Your task to perform on an android device: turn off notifications settings in the gmail app Image 0: 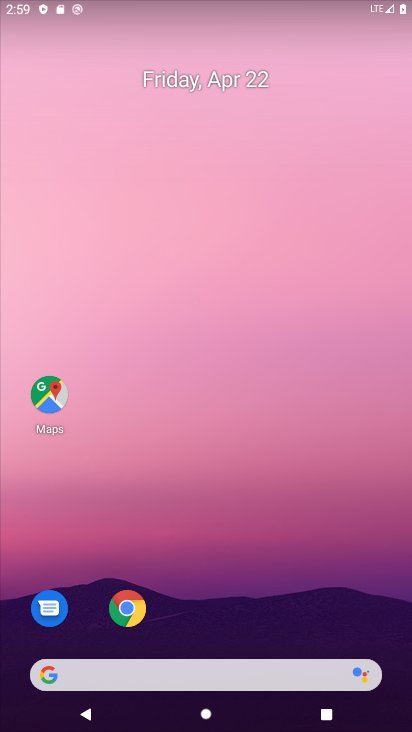
Step 0: drag from (275, 700) to (239, 228)
Your task to perform on an android device: turn off notifications settings in the gmail app Image 1: 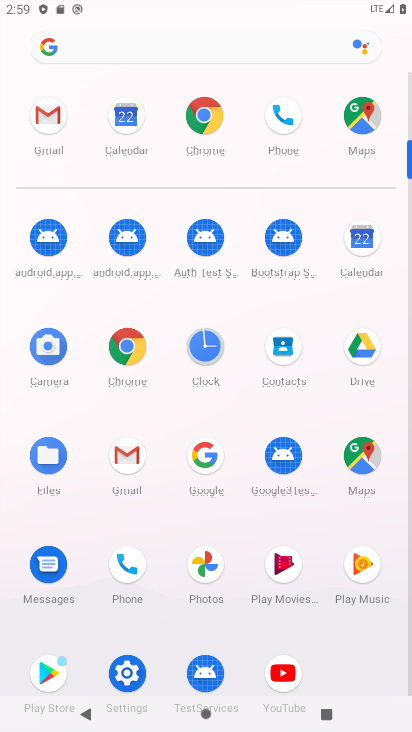
Step 1: click (131, 452)
Your task to perform on an android device: turn off notifications settings in the gmail app Image 2: 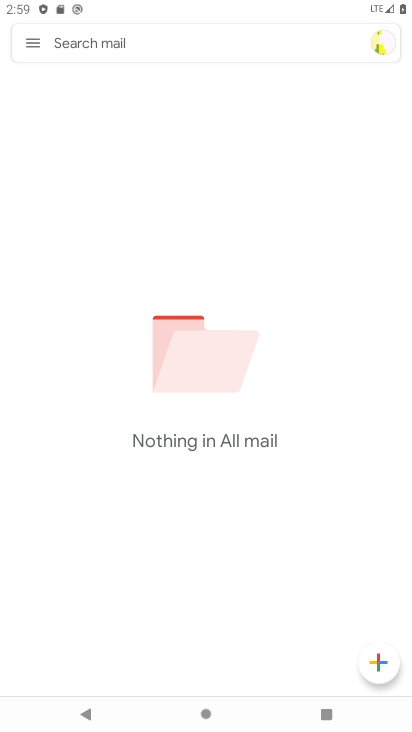
Step 2: click (24, 49)
Your task to perform on an android device: turn off notifications settings in the gmail app Image 3: 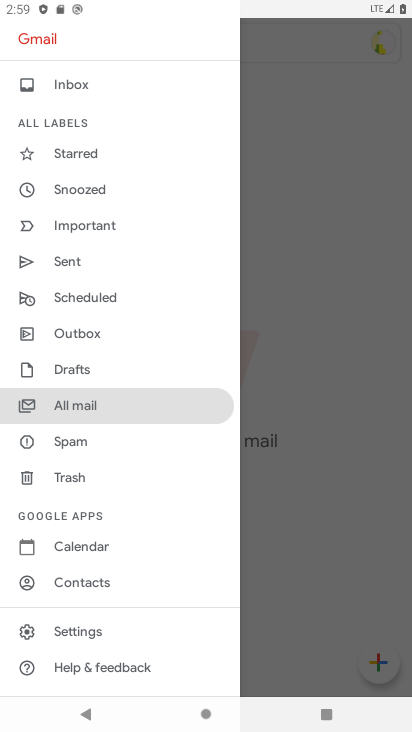
Step 3: click (86, 631)
Your task to perform on an android device: turn off notifications settings in the gmail app Image 4: 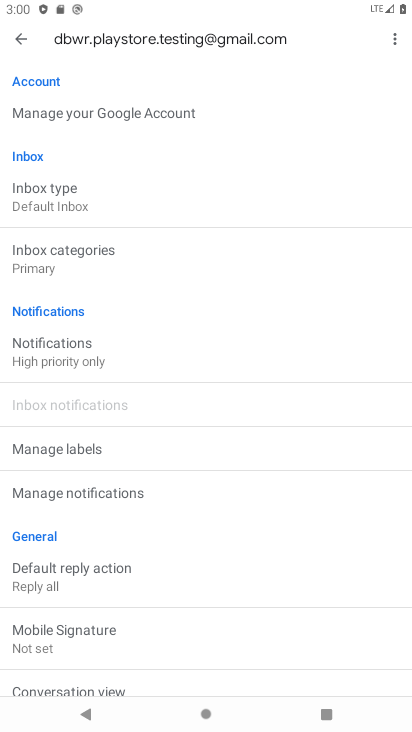
Step 4: click (102, 364)
Your task to perform on an android device: turn off notifications settings in the gmail app Image 5: 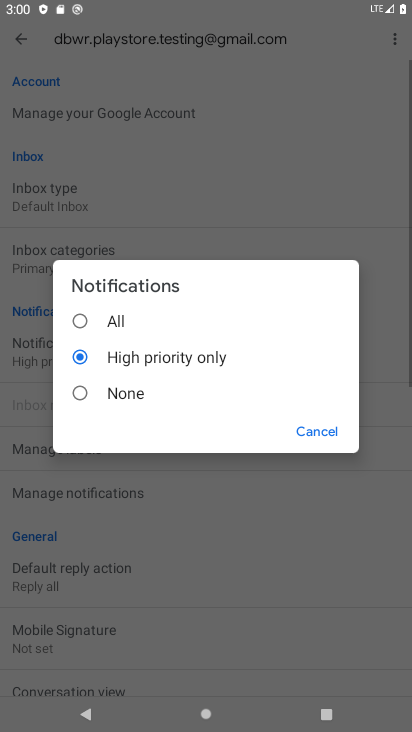
Step 5: click (139, 400)
Your task to perform on an android device: turn off notifications settings in the gmail app Image 6: 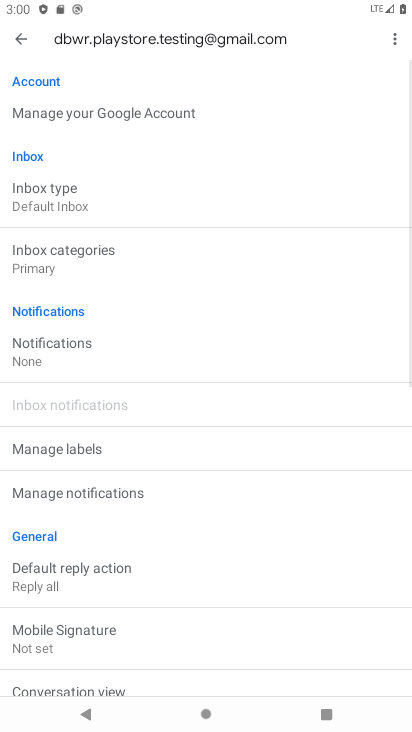
Step 6: task complete